Your task to perform on an android device: remove spam from my inbox in the gmail app Image 0: 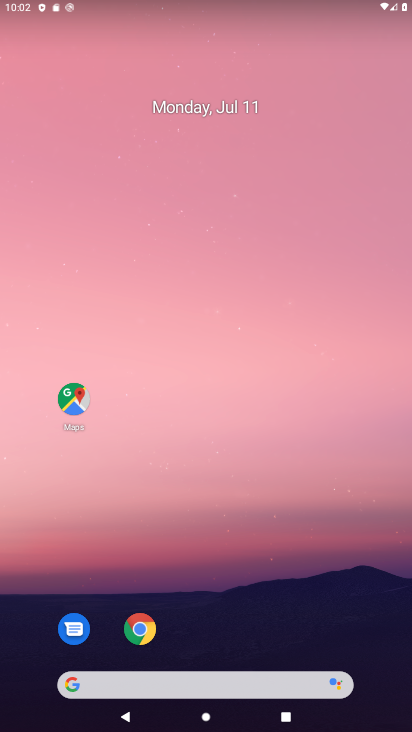
Step 0: drag from (229, 607) to (242, 177)
Your task to perform on an android device: remove spam from my inbox in the gmail app Image 1: 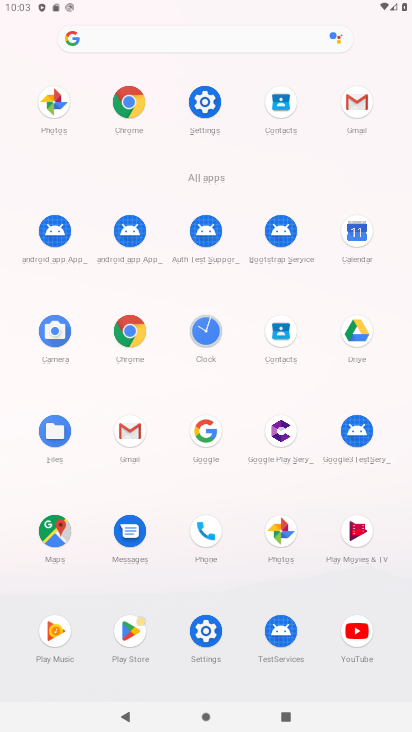
Step 1: click (337, 119)
Your task to perform on an android device: remove spam from my inbox in the gmail app Image 2: 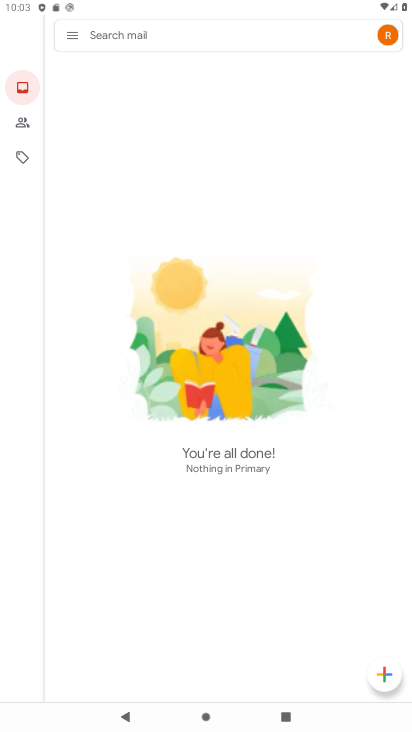
Step 2: click (71, 42)
Your task to perform on an android device: remove spam from my inbox in the gmail app Image 3: 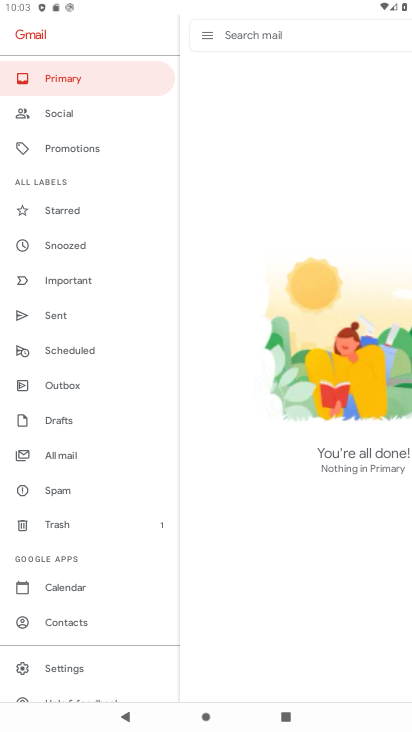
Step 3: click (65, 498)
Your task to perform on an android device: remove spam from my inbox in the gmail app Image 4: 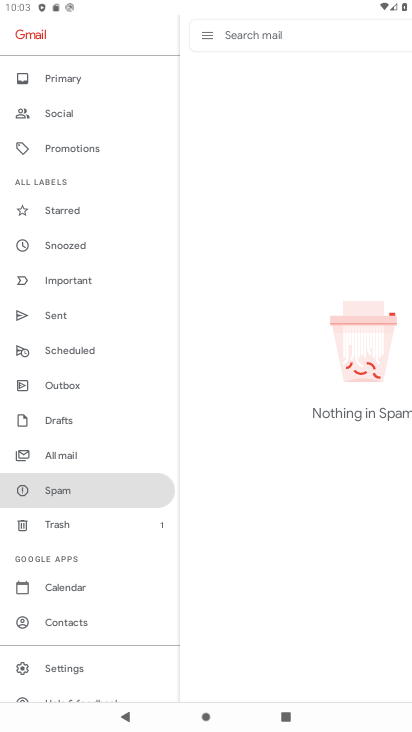
Step 4: task complete